Your task to perform on an android device: Is it going to rain today? Image 0: 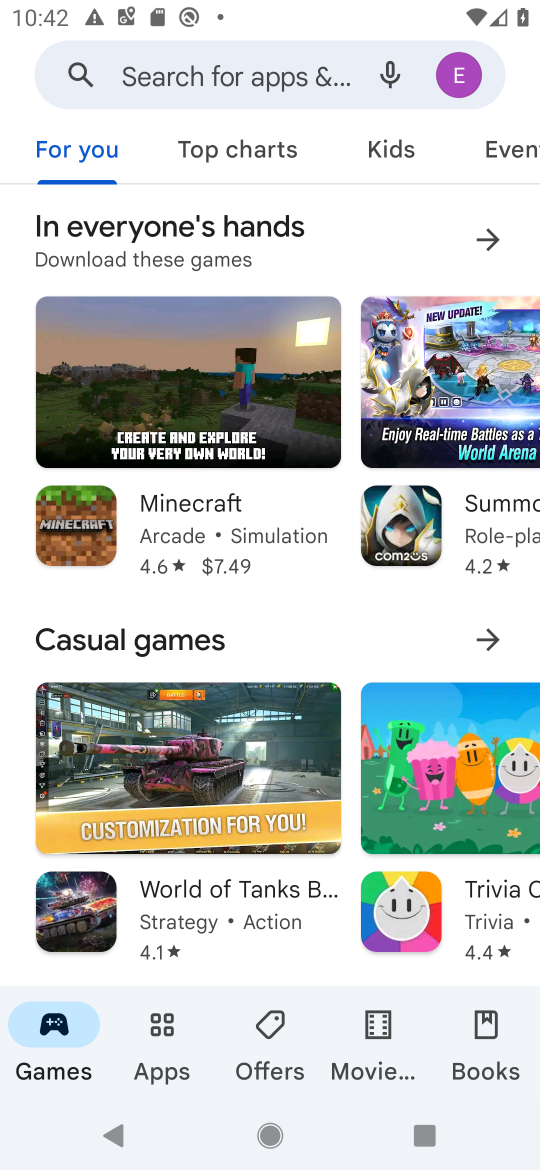
Step 0: press home button
Your task to perform on an android device: Is it going to rain today? Image 1: 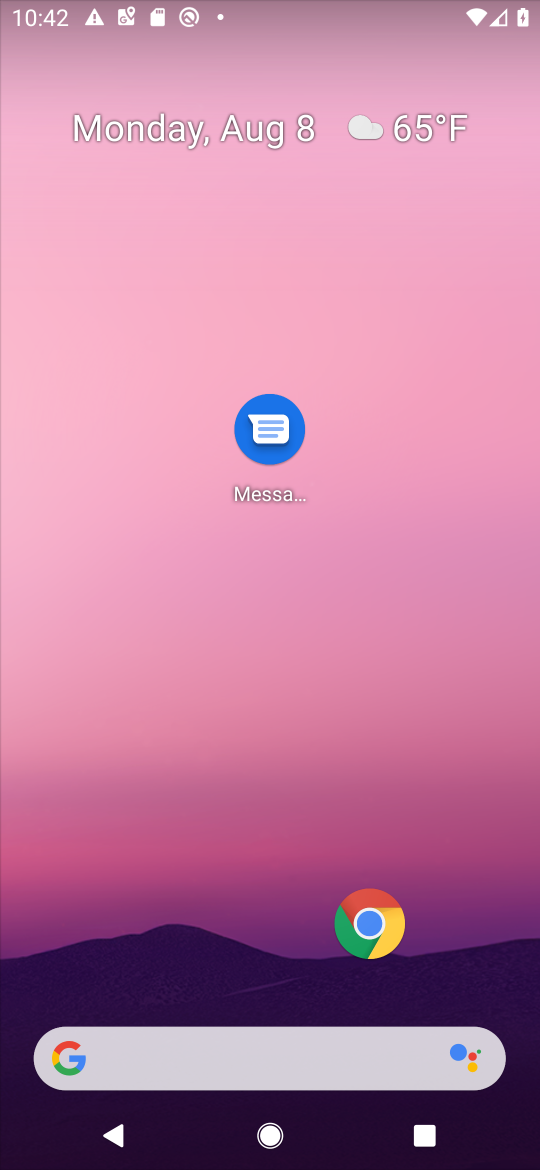
Step 1: click (112, 1059)
Your task to perform on an android device: Is it going to rain today? Image 2: 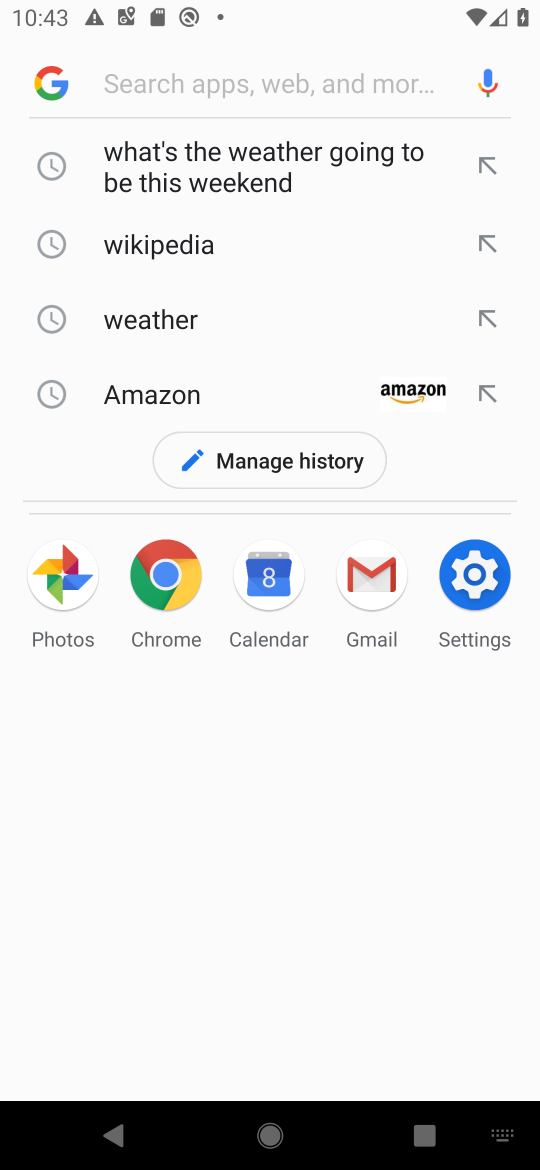
Step 2: type "Is it going to rain today?"
Your task to perform on an android device: Is it going to rain today? Image 3: 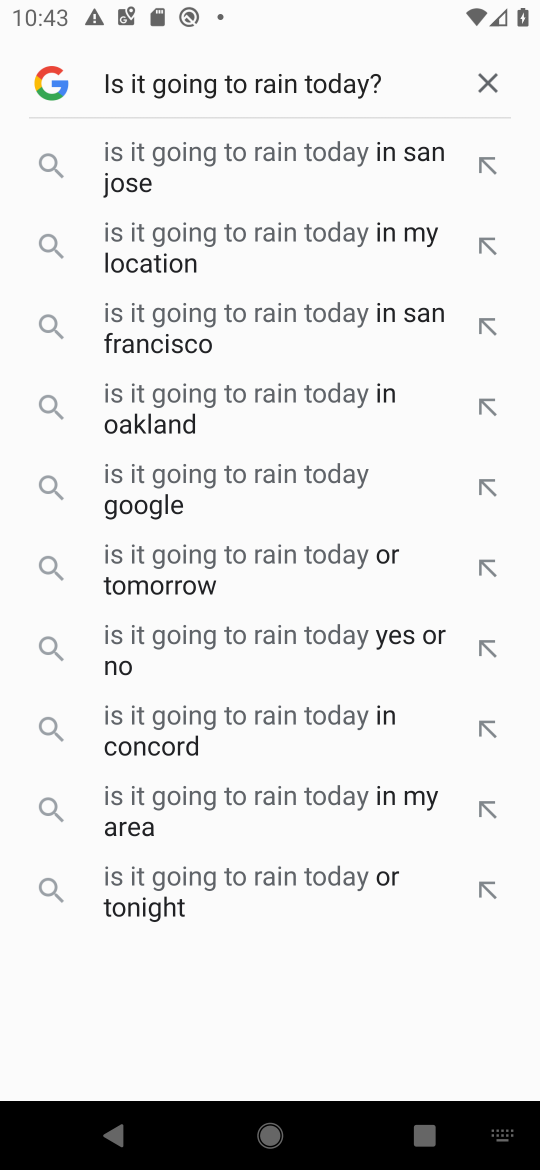
Step 3: type ""
Your task to perform on an android device: Is it going to rain today? Image 4: 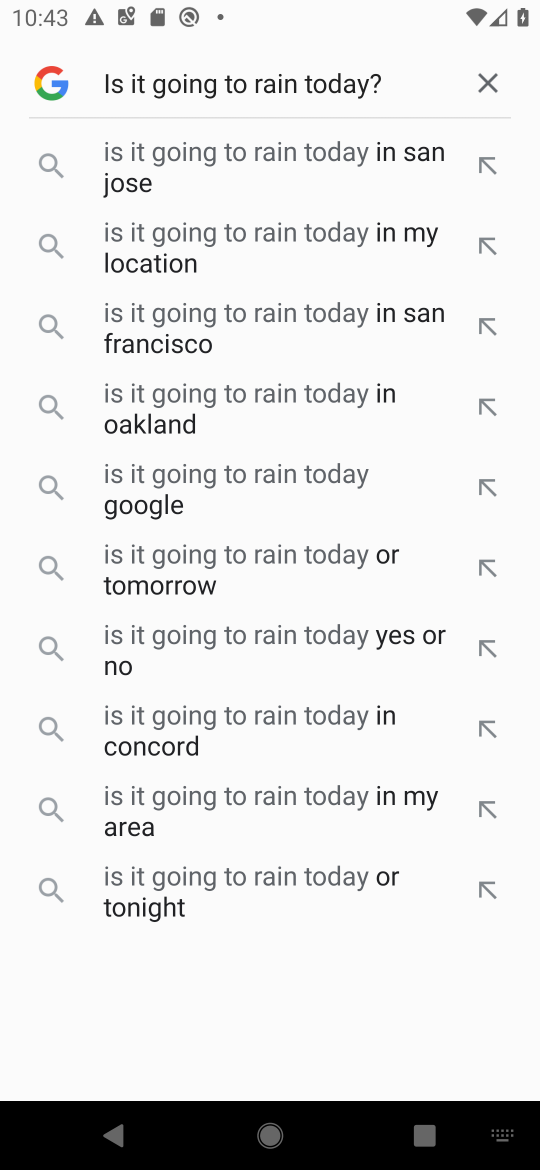
Step 4: type ""
Your task to perform on an android device: Is it going to rain today? Image 5: 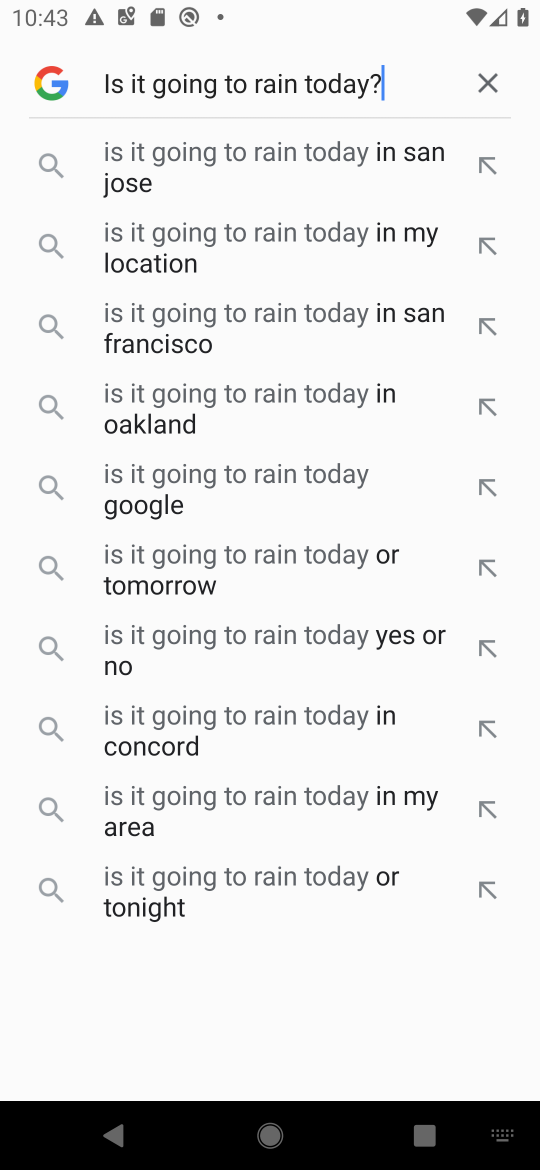
Step 5: task complete